Your task to perform on an android device: Open Yahoo.com Image 0: 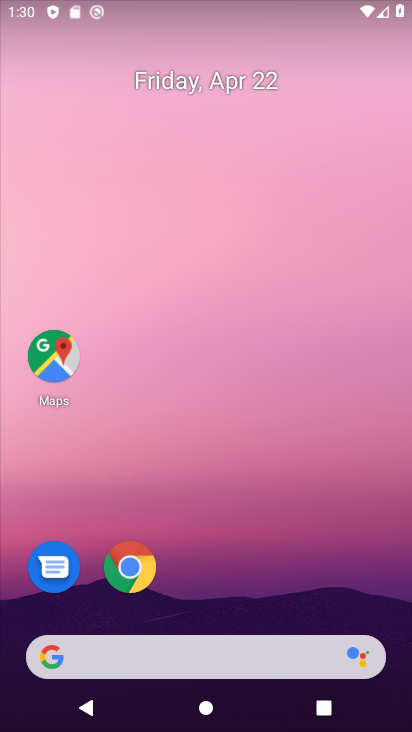
Step 0: click (248, 655)
Your task to perform on an android device: Open Yahoo.com Image 1: 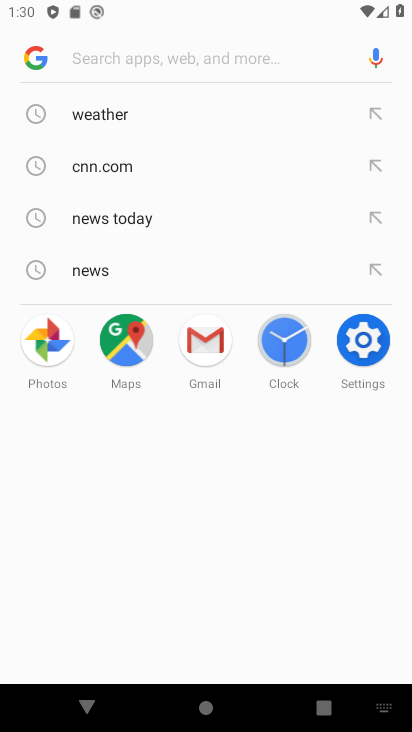
Step 1: type "yahoo.com"
Your task to perform on an android device: Open Yahoo.com Image 2: 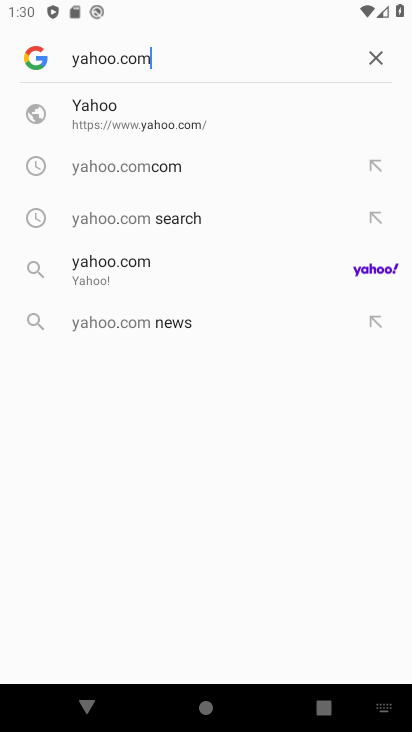
Step 2: click (223, 286)
Your task to perform on an android device: Open Yahoo.com Image 3: 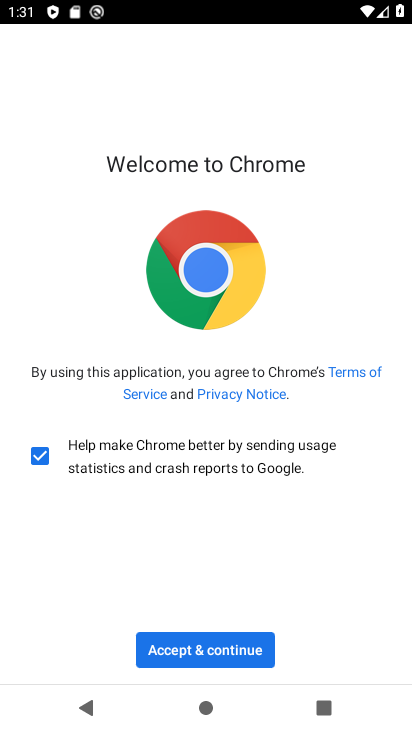
Step 3: click (217, 648)
Your task to perform on an android device: Open Yahoo.com Image 4: 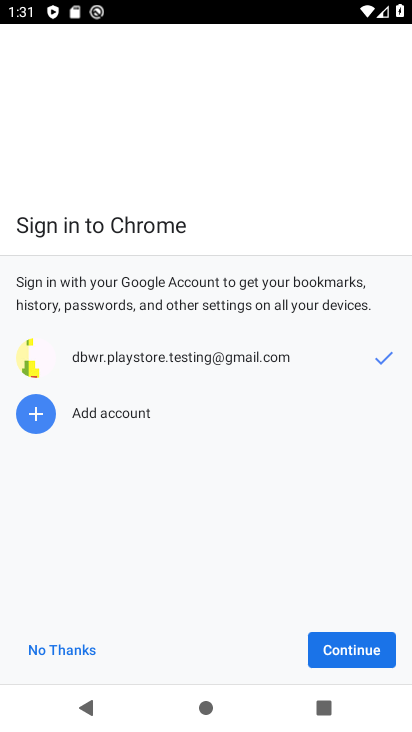
Step 4: click (347, 654)
Your task to perform on an android device: Open Yahoo.com Image 5: 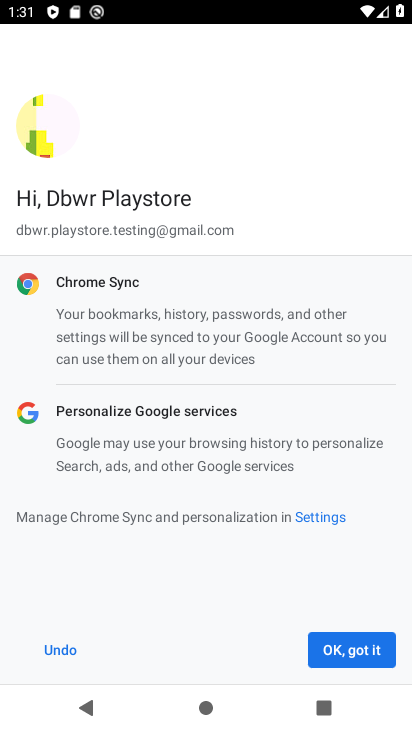
Step 5: click (347, 652)
Your task to perform on an android device: Open Yahoo.com Image 6: 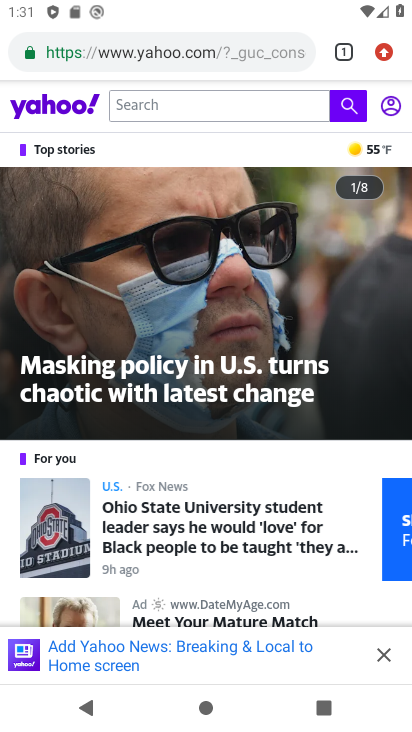
Step 6: task complete